Your task to perform on an android device: toggle wifi Image 0: 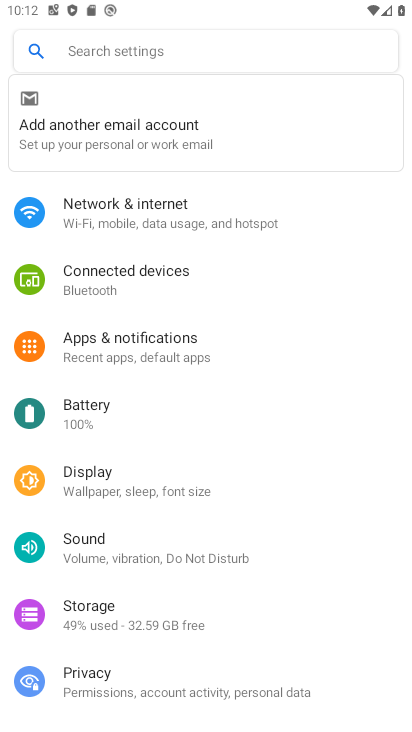
Step 0: click (135, 219)
Your task to perform on an android device: toggle wifi Image 1: 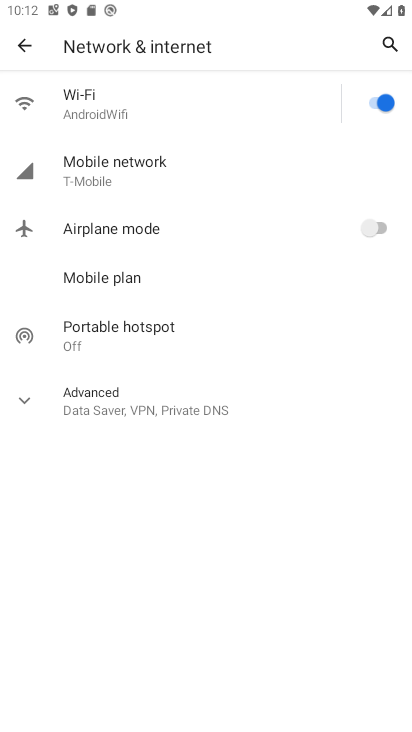
Step 1: click (359, 101)
Your task to perform on an android device: toggle wifi Image 2: 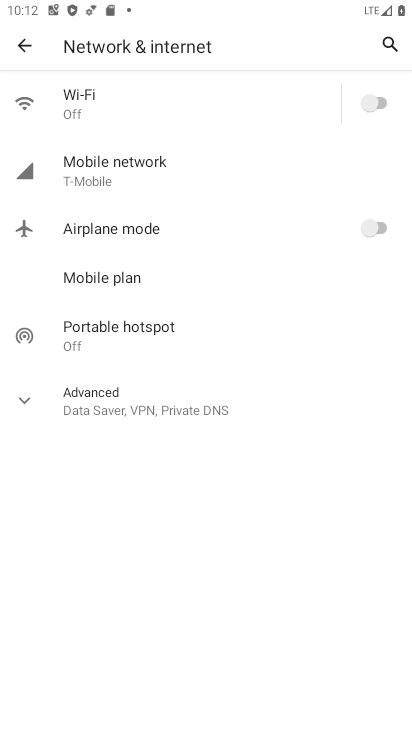
Step 2: task complete